Your task to perform on an android device: snooze an email in the gmail app Image 0: 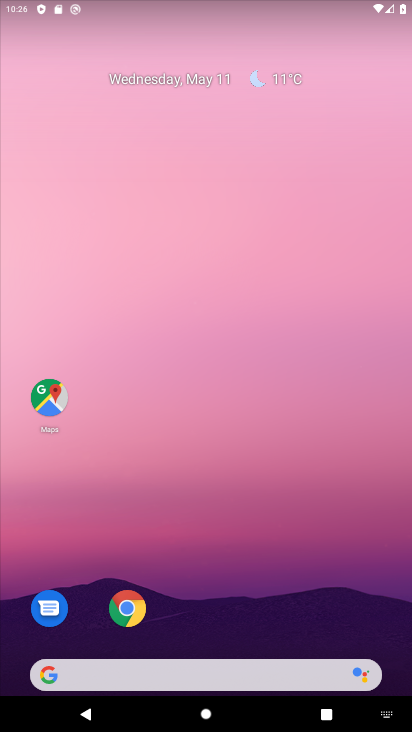
Step 0: drag from (175, 613) to (400, 369)
Your task to perform on an android device: snooze an email in the gmail app Image 1: 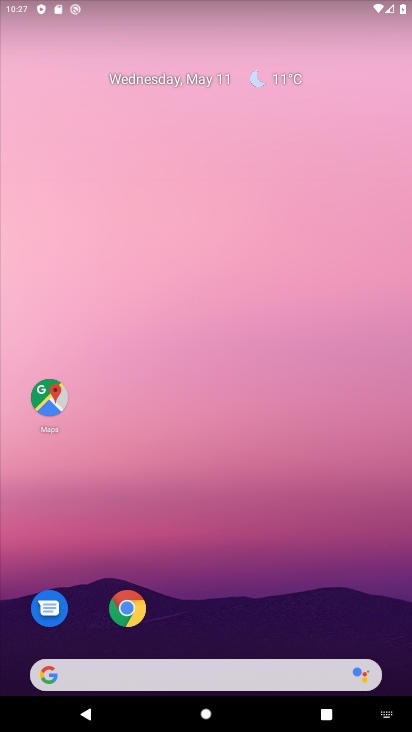
Step 1: drag from (181, 635) to (384, 102)
Your task to perform on an android device: snooze an email in the gmail app Image 2: 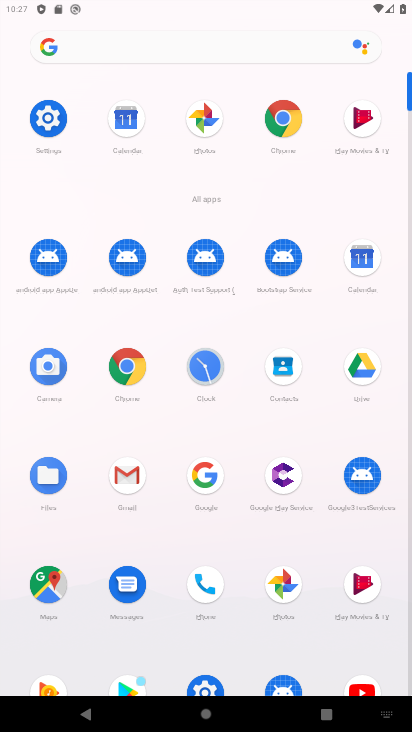
Step 2: click (125, 488)
Your task to perform on an android device: snooze an email in the gmail app Image 3: 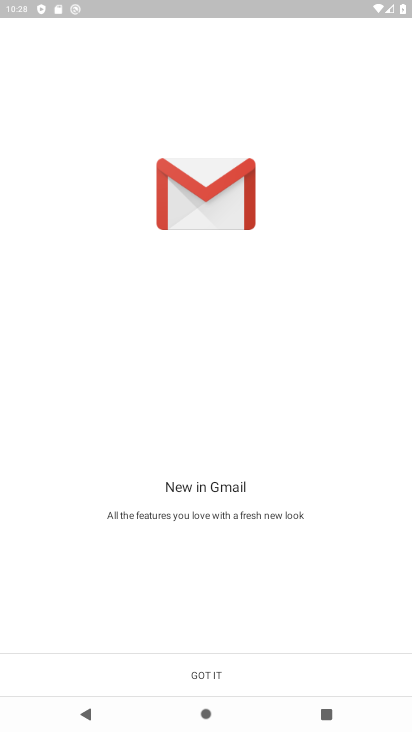
Step 3: click (240, 662)
Your task to perform on an android device: snooze an email in the gmail app Image 4: 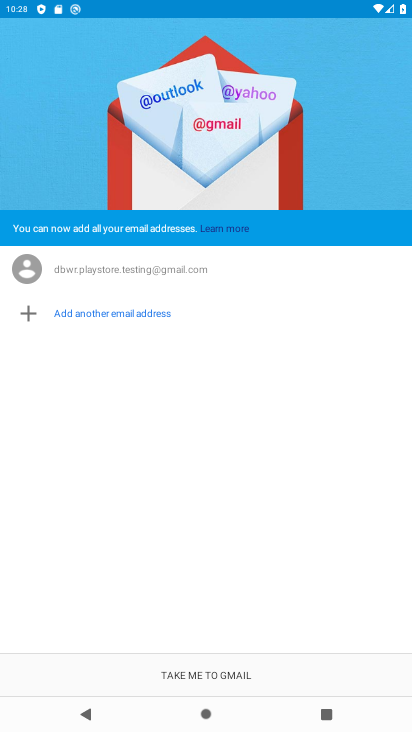
Step 4: click (223, 683)
Your task to perform on an android device: snooze an email in the gmail app Image 5: 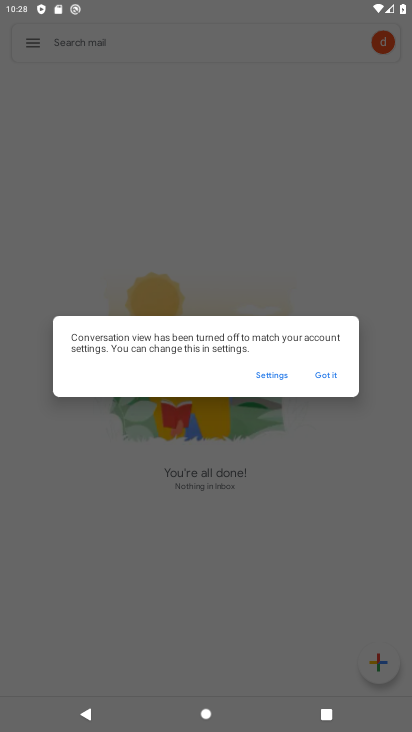
Step 5: click (316, 376)
Your task to perform on an android device: snooze an email in the gmail app Image 6: 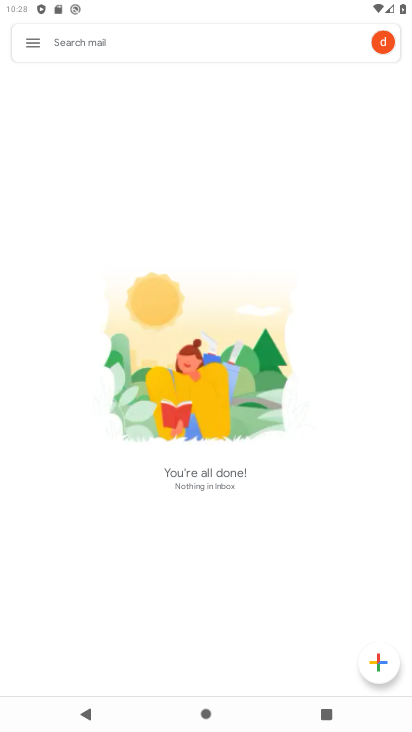
Step 6: click (31, 36)
Your task to perform on an android device: snooze an email in the gmail app Image 7: 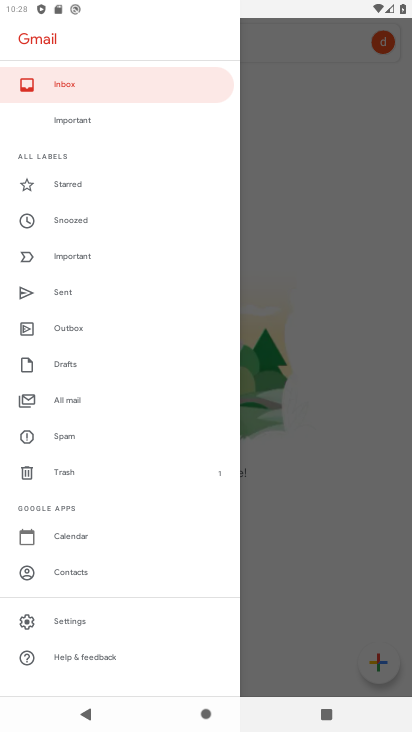
Step 7: click (75, 404)
Your task to perform on an android device: snooze an email in the gmail app Image 8: 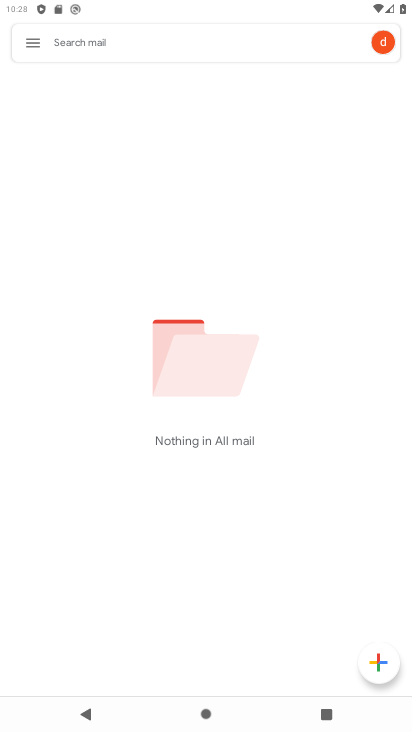
Step 8: task complete